Your task to perform on an android device: allow notifications from all sites in the chrome app Image 0: 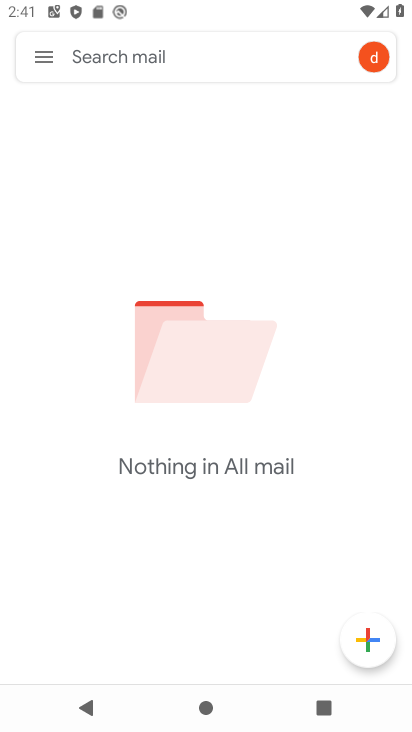
Step 0: press home button
Your task to perform on an android device: allow notifications from all sites in the chrome app Image 1: 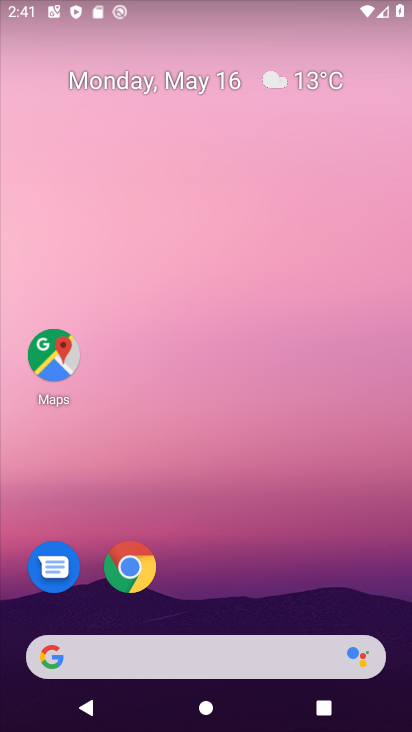
Step 1: drag from (274, 564) to (279, 7)
Your task to perform on an android device: allow notifications from all sites in the chrome app Image 2: 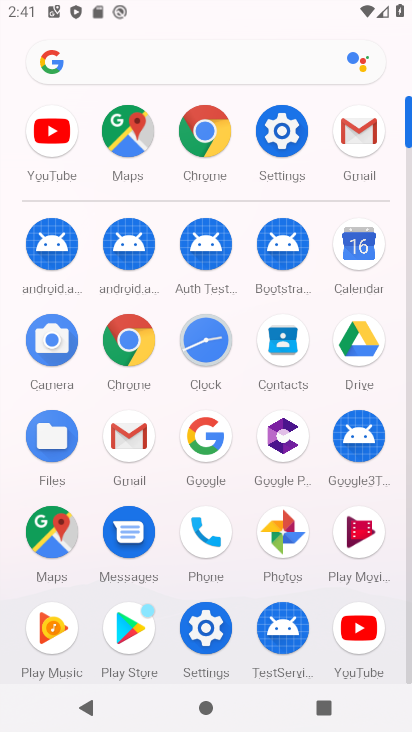
Step 2: click (129, 323)
Your task to perform on an android device: allow notifications from all sites in the chrome app Image 3: 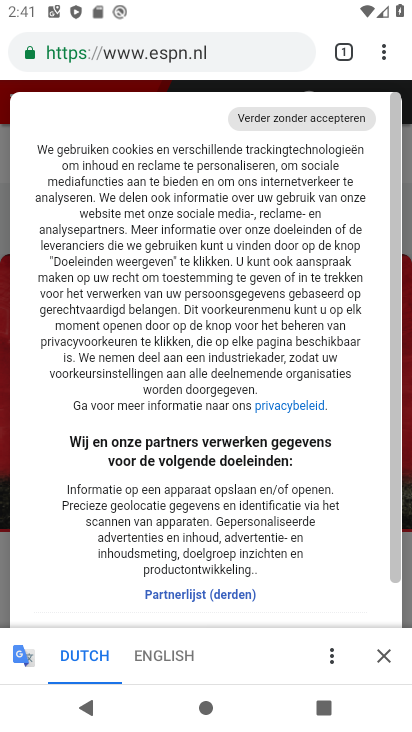
Step 3: drag from (385, 53) to (262, 606)
Your task to perform on an android device: allow notifications from all sites in the chrome app Image 4: 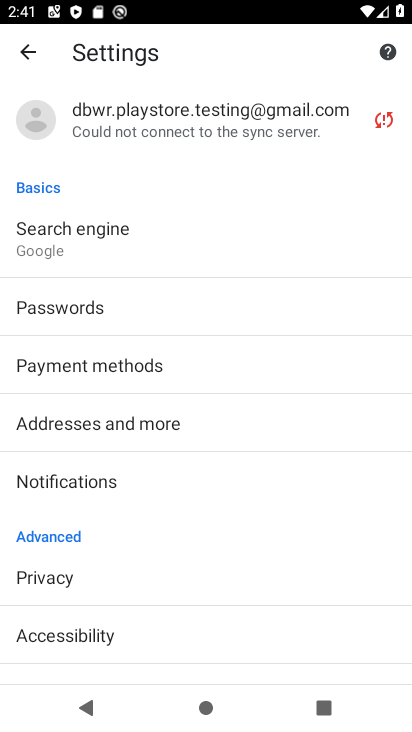
Step 4: drag from (114, 594) to (228, 167)
Your task to perform on an android device: allow notifications from all sites in the chrome app Image 5: 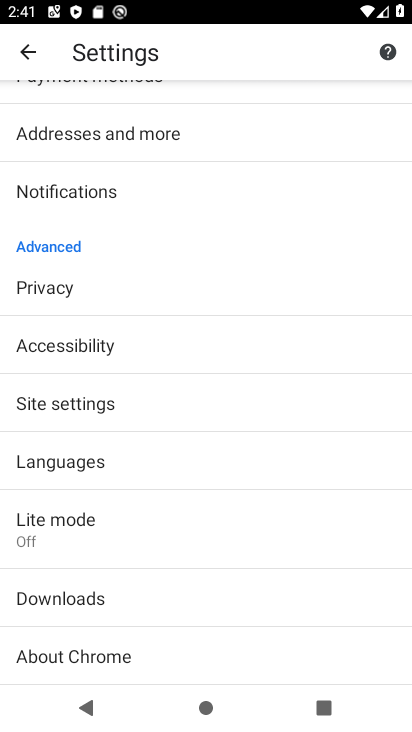
Step 5: click (145, 195)
Your task to perform on an android device: allow notifications from all sites in the chrome app Image 6: 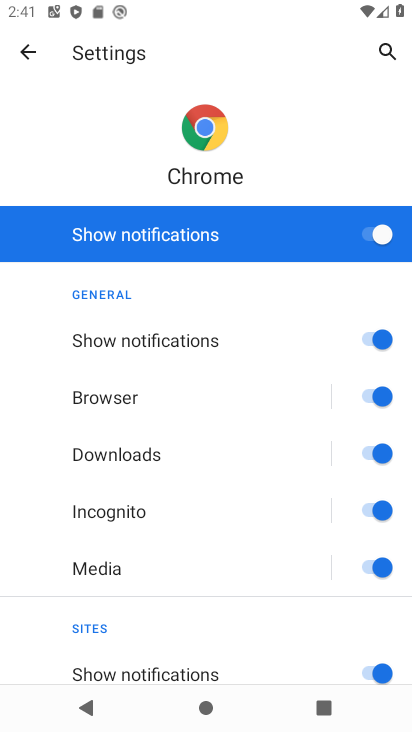
Step 6: task complete